Your task to perform on an android device: turn on wifi Image 0: 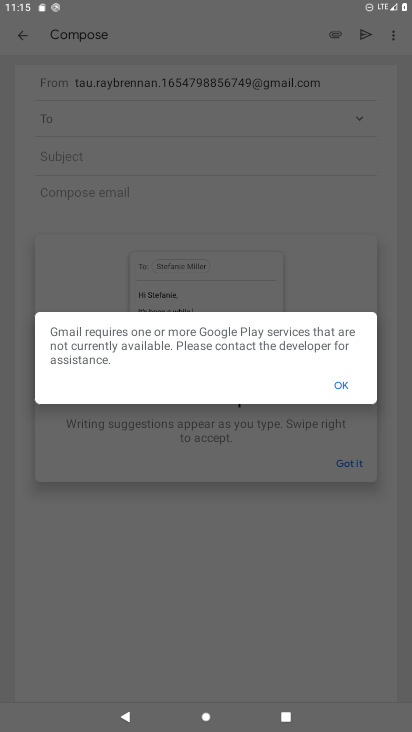
Step 0: press home button
Your task to perform on an android device: turn on wifi Image 1: 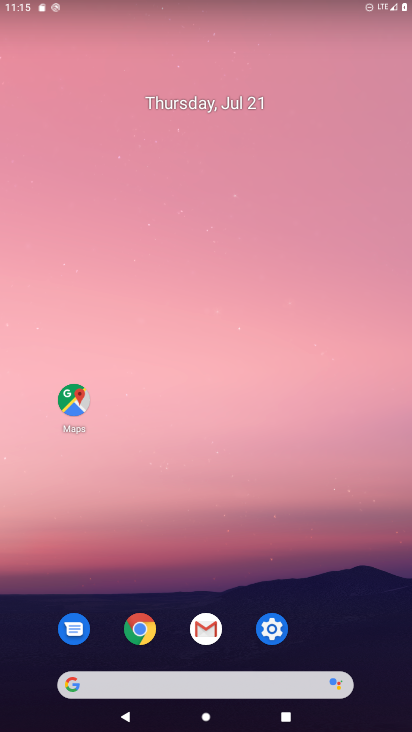
Step 1: click (280, 633)
Your task to perform on an android device: turn on wifi Image 2: 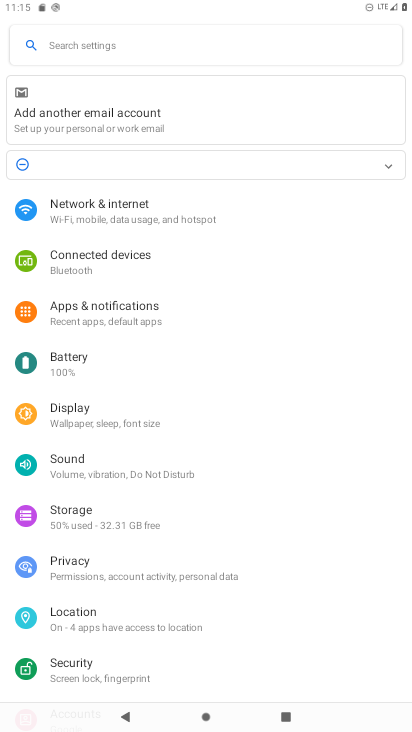
Step 2: click (108, 219)
Your task to perform on an android device: turn on wifi Image 3: 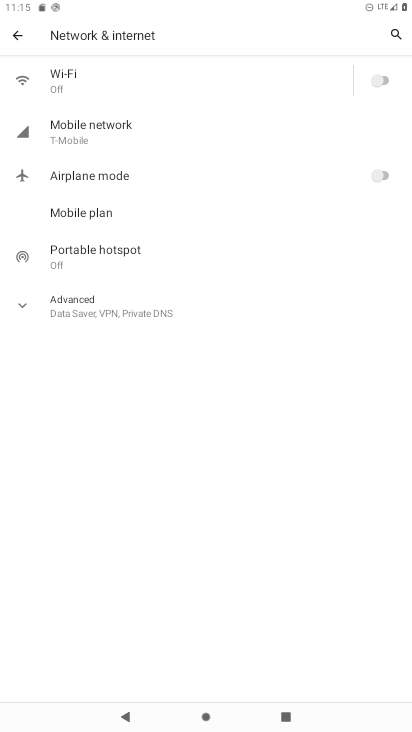
Step 3: click (100, 81)
Your task to perform on an android device: turn on wifi Image 4: 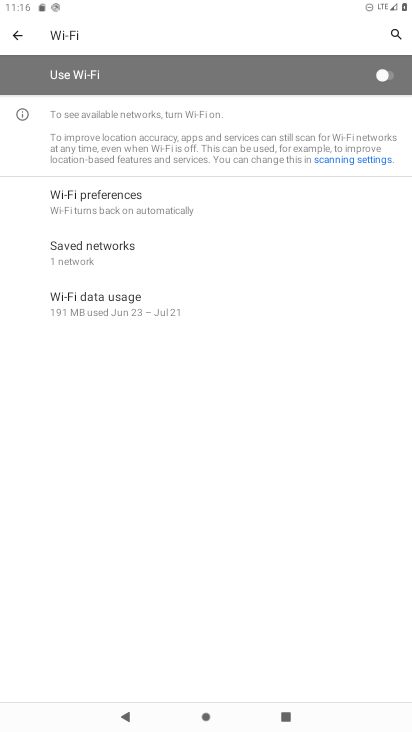
Step 4: task complete